Your task to perform on an android device: Clear the cart on newegg. Add "macbook air" to the cart on newegg Image 0: 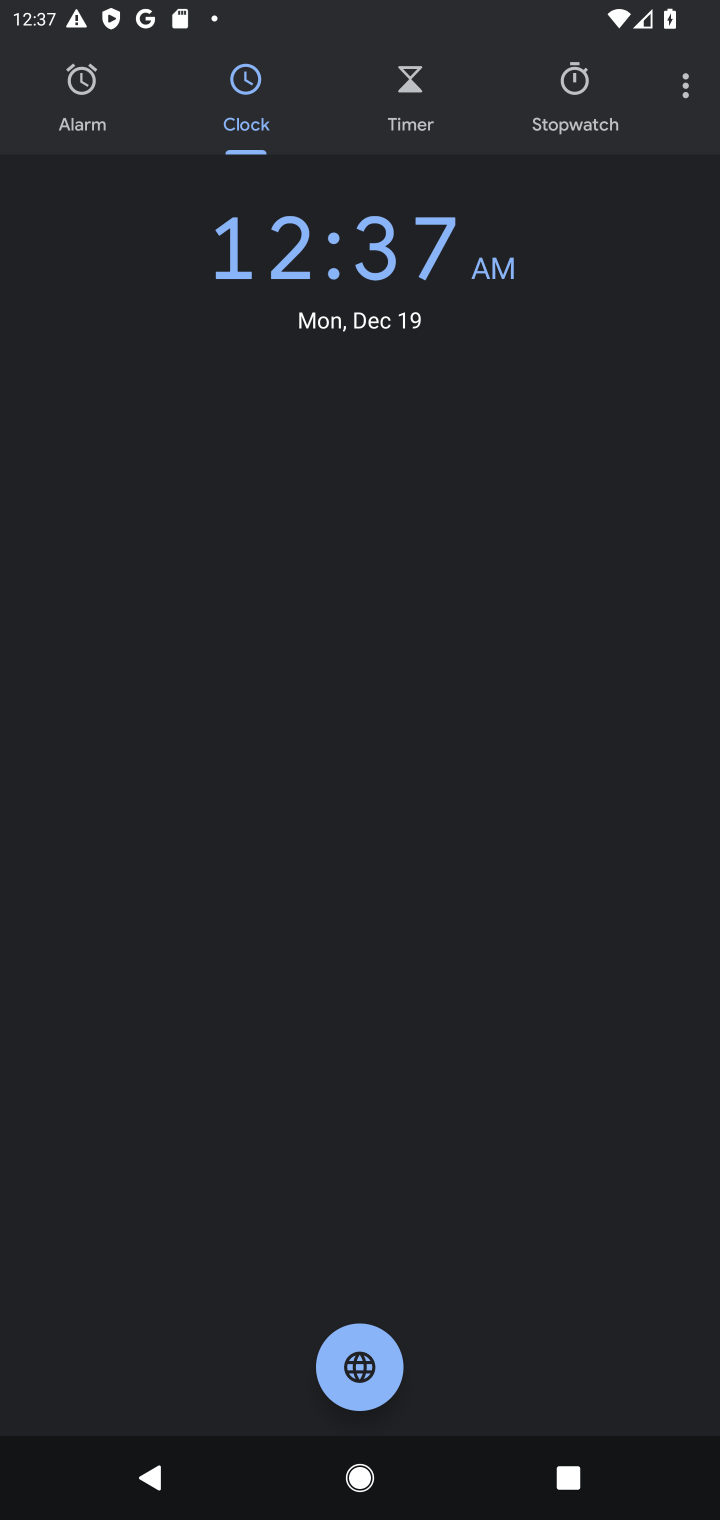
Step 0: task complete